Your task to perform on an android device: turn off picture-in-picture Image 0: 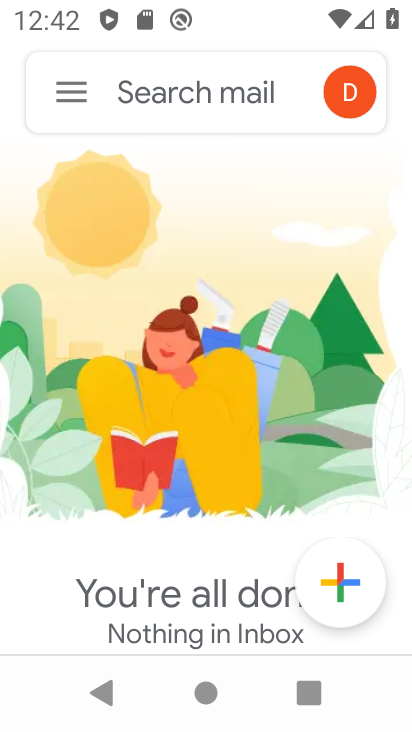
Step 0: press home button
Your task to perform on an android device: turn off picture-in-picture Image 1: 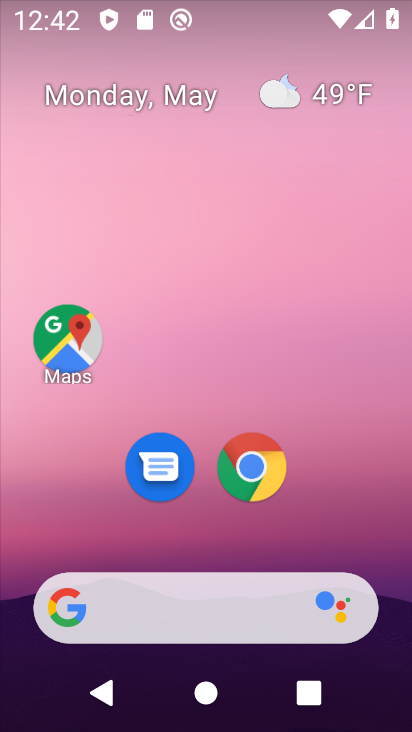
Step 1: drag from (349, 532) to (310, 162)
Your task to perform on an android device: turn off picture-in-picture Image 2: 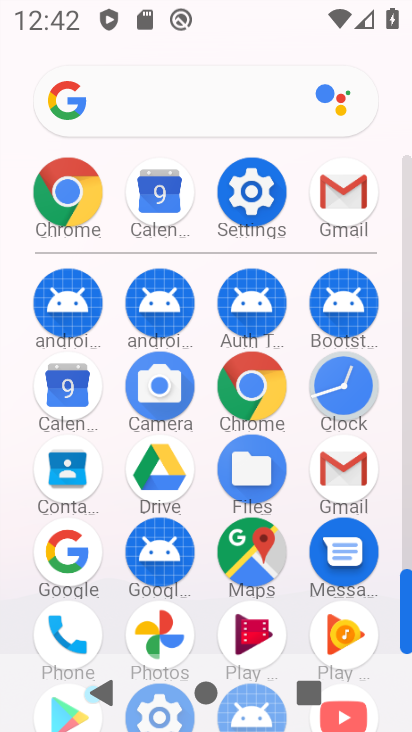
Step 2: click (241, 199)
Your task to perform on an android device: turn off picture-in-picture Image 3: 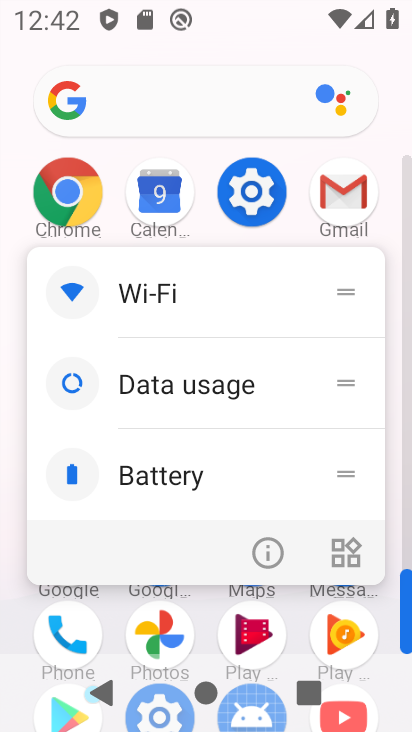
Step 3: click (398, 121)
Your task to perform on an android device: turn off picture-in-picture Image 4: 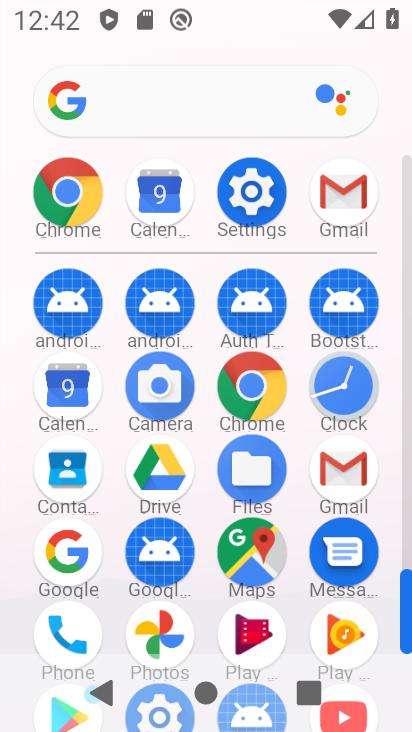
Step 4: click (254, 196)
Your task to perform on an android device: turn off picture-in-picture Image 5: 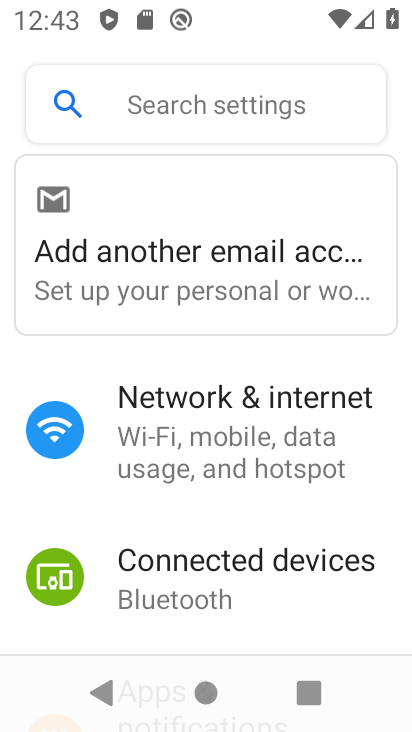
Step 5: drag from (302, 440) to (305, 126)
Your task to perform on an android device: turn off picture-in-picture Image 6: 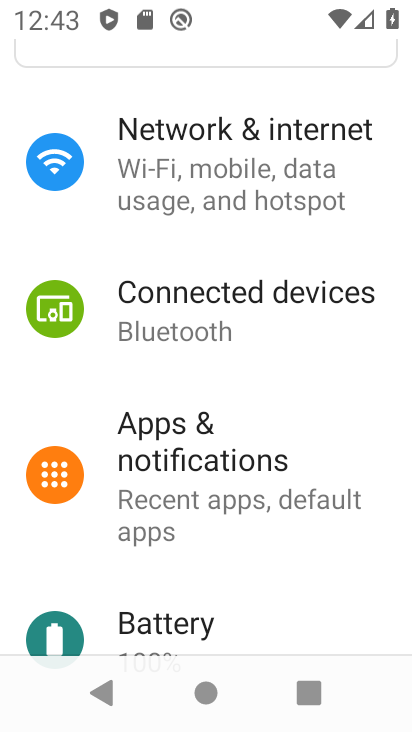
Step 6: drag from (355, 579) to (345, 218)
Your task to perform on an android device: turn off picture-in-picture Image 7: 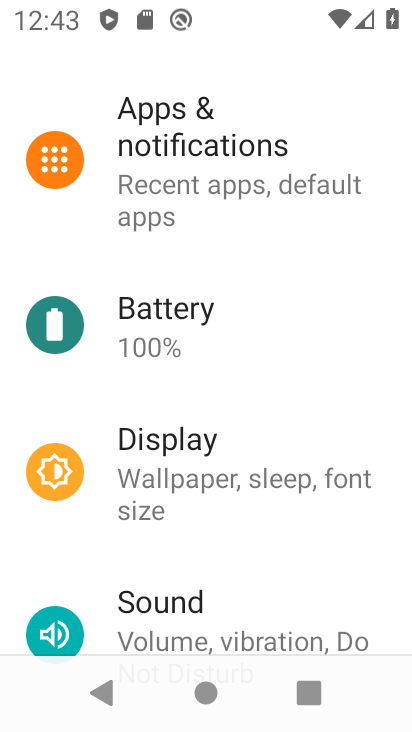
Step 7: drag from (345, 566) to (324, 267)
Your task to perform on an android device: turn off picture-in-picture Image 8: 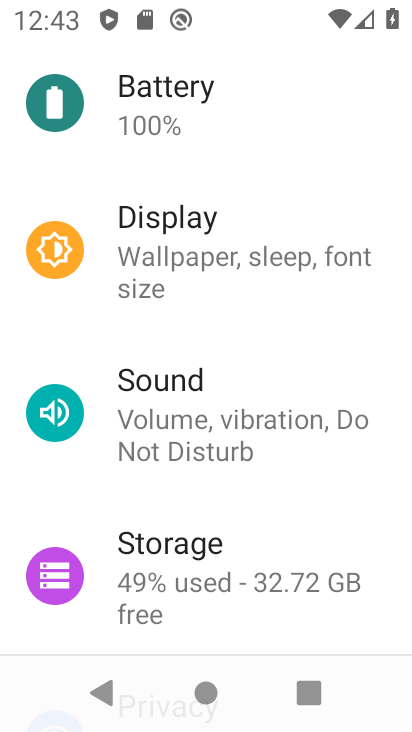
Step 8: drag from (339, 528) to (330, 201)
Your task to perform on an android device: turn off picture-in-picture Image 9: 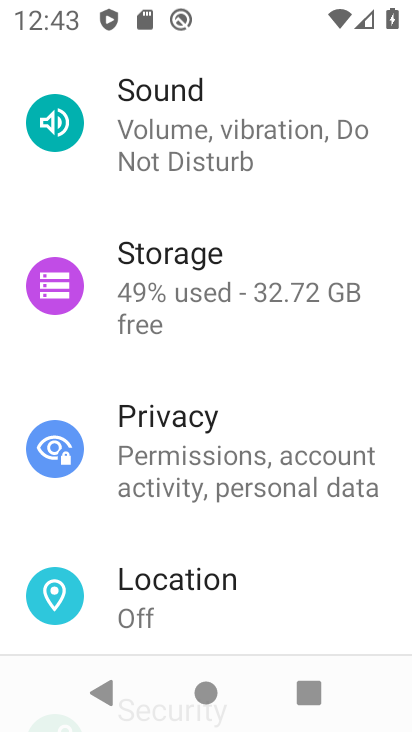
Step 9: drag from (326, 547) to (311, 171)
Your task to perform on an android device: turn off picture-in-picture Image 10: 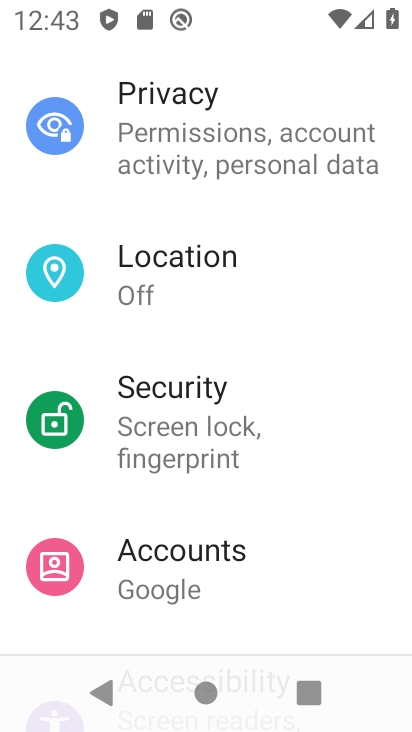
Step 10: drag from (323, 550) to (313, 267)
Your task to perform on an android device: turn off picture-in-picture Image 11: 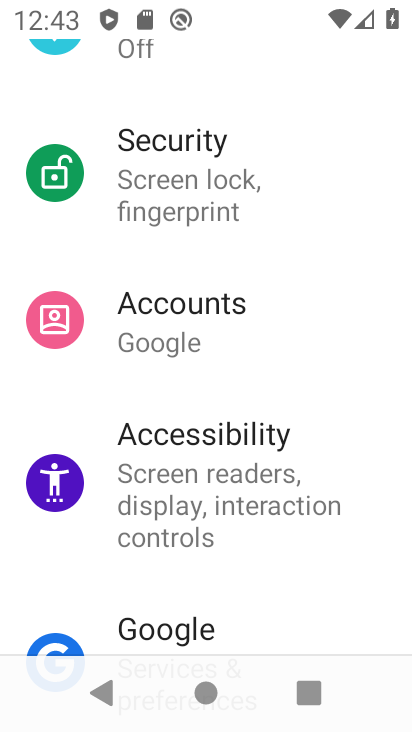
Step 11: drag from (291, 154) to (309, 555)
Your task to perform on an android device: turn off picture-in-picture Image 12: 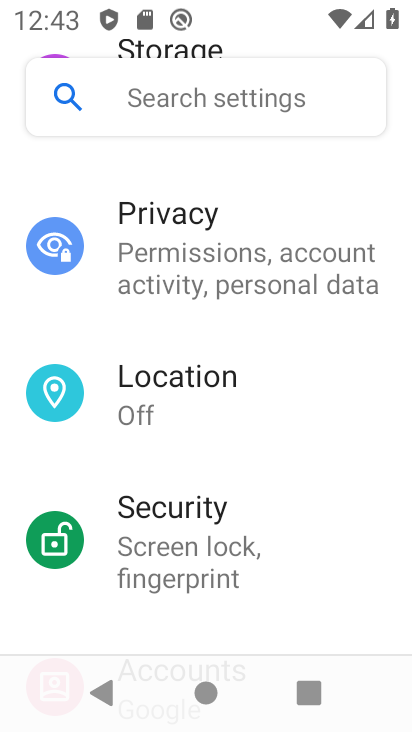
Step 12: drag from (302, 253) to (357, 548)
Your task to perform on an android device: turn off picture-in-picture Image 13: 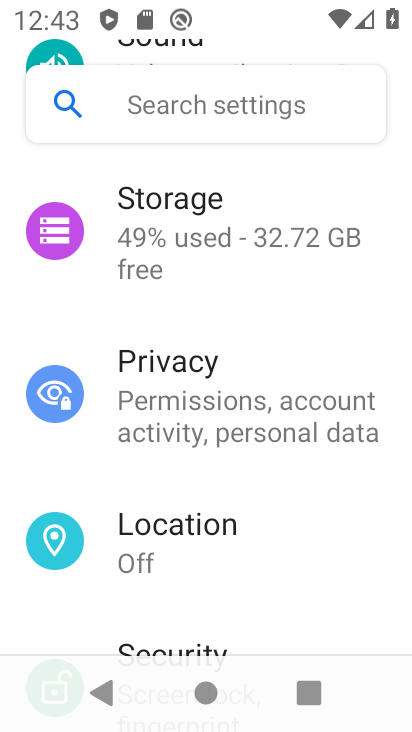
Step 13: drag from (292, 221) to (332, 543)
Your task to perform on an android device: turn off picture-in-picture Image 14: 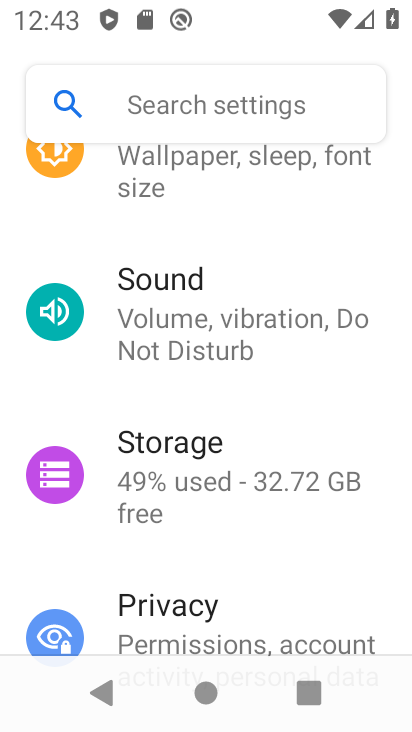
Step 14: drag from (276, 237) to (340, 524)
Your task to perform on an android device: turn off picture-in-picture Image 15: 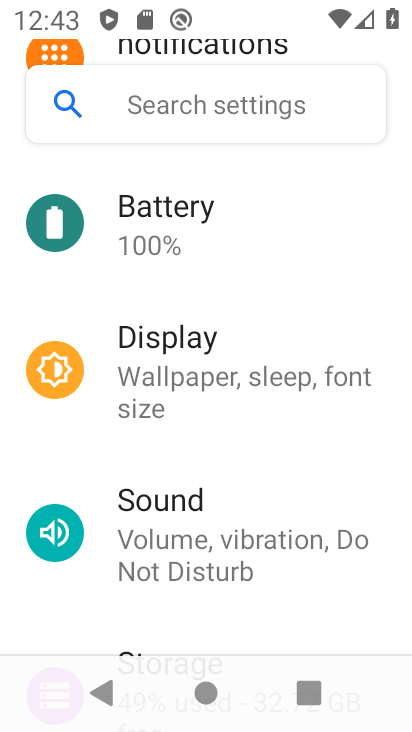
Step 15: drag from (318, 337) to (324, 568)
Your task to perform on an android device: turn off picture-in-picture Image 16: 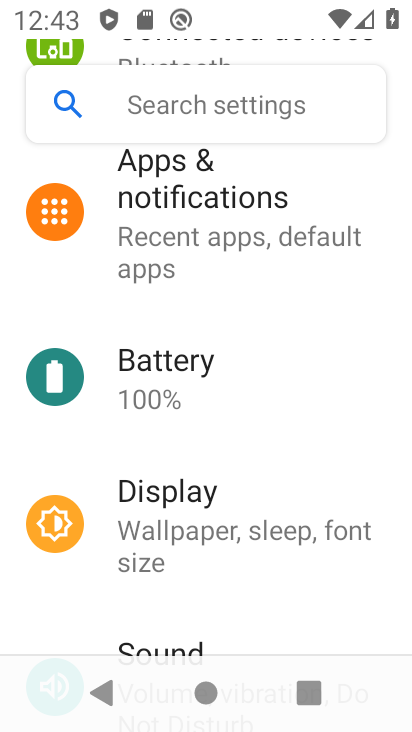
Step 16: click (255, 212)
Your task to perform on an android device: turn off picture-in-picture Image 17: 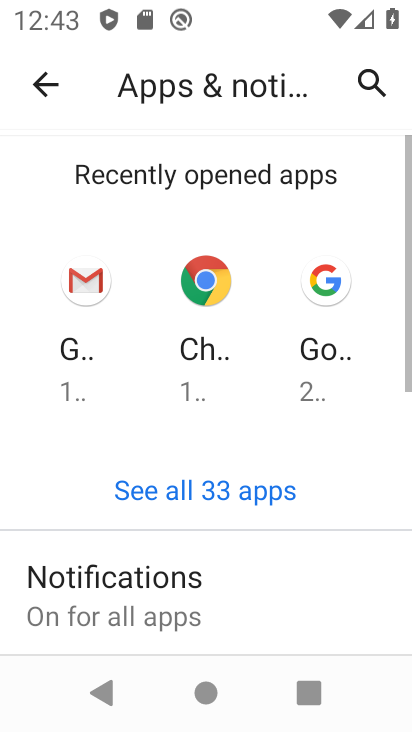
Step 17: drag from (341, 577) to (310, 178)
Your task to perform on an android device: turn off picture-in-picture Image 18: 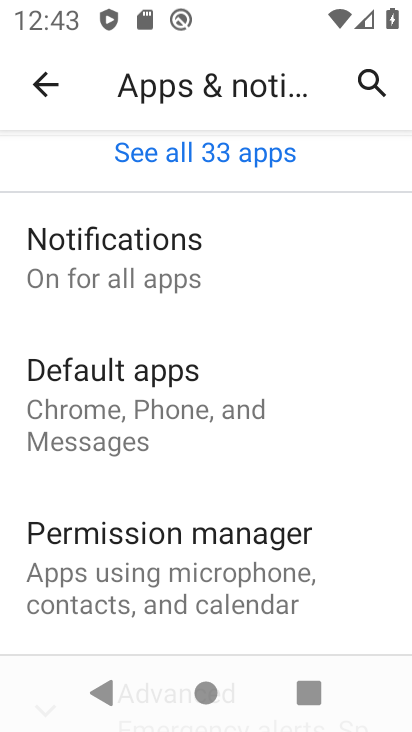
Step 18: drag from (334, 649) to (334, 181)
Your task to perform on an android device: turn off picture-in-picture Image 19: 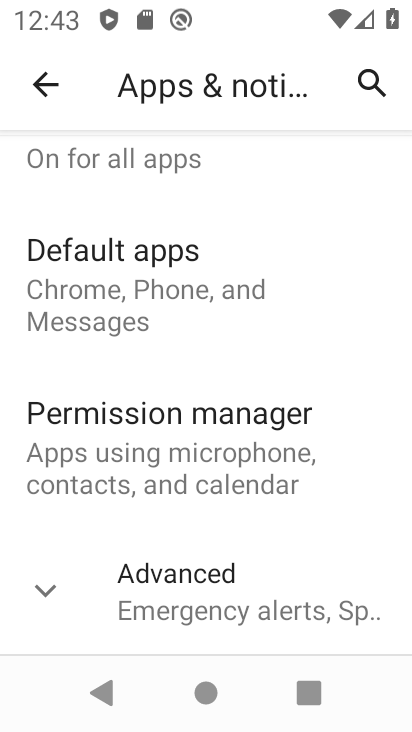
Step 19: click (297, 589)
Your task to perform on an android device: turn off picture-in-picture Image 20: 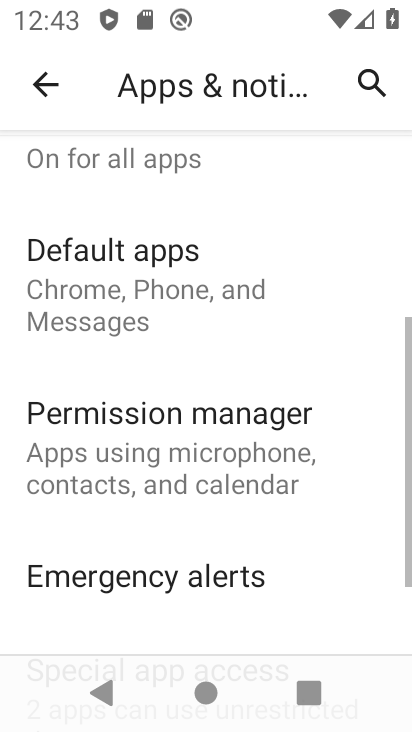
Step 20: drag from (317, 620) to (348, 133)
Your task to perform on an android device: turn off picture-in-picture Image 21: 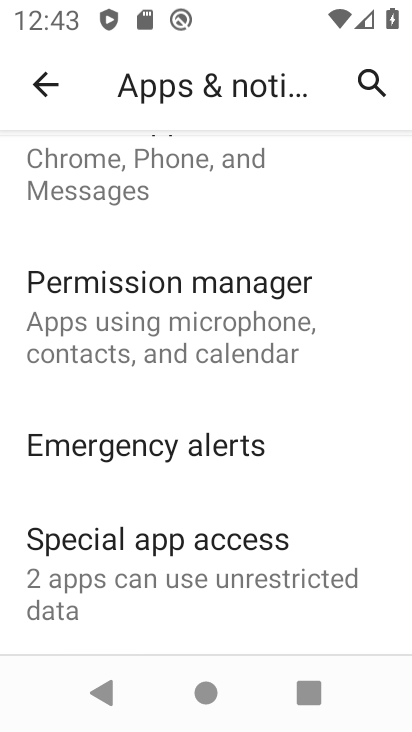
Step 21: click (332, 560)
Your task to perform on an android device: turn off picture-in-picture Image 22: 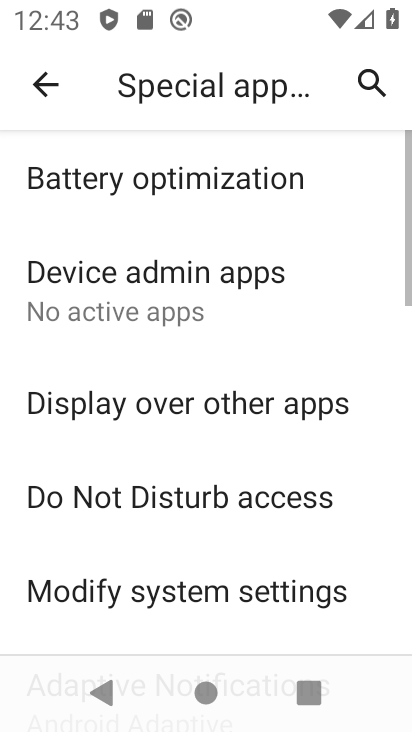
Step 22: drag from (356, 583) to (356, 327)
Your task to perform on an android device: turn off picture-in-picture Image 23: 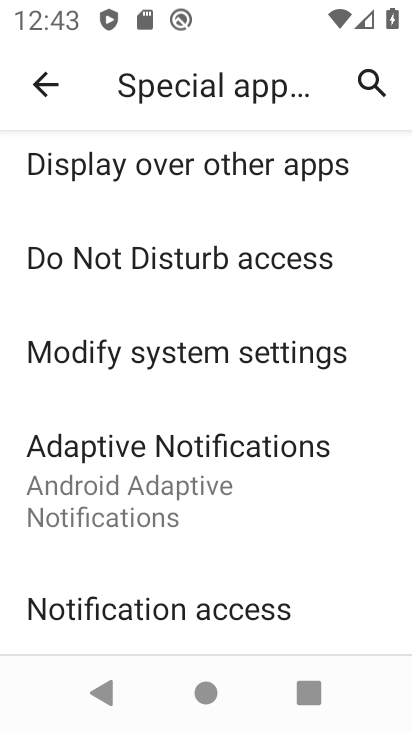
Step 23: drag from (325, 557) to (360, 225)
Your task to perform on an android device: turn off picture-in-picture Image 24: 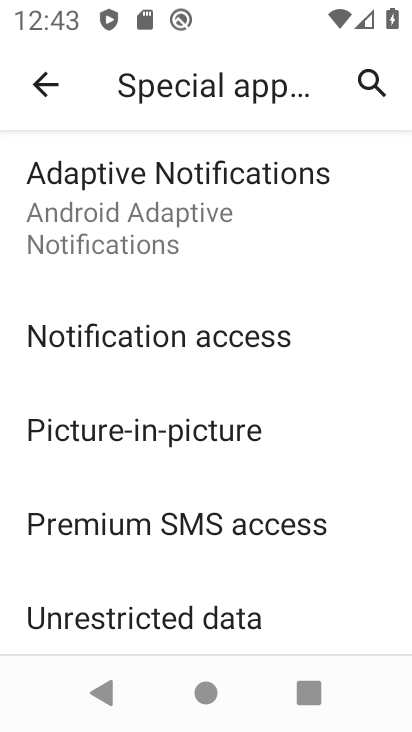
Step 24: click (172, 424)
Your task to perform on an android device: turn off picture-in-picture Image 25: 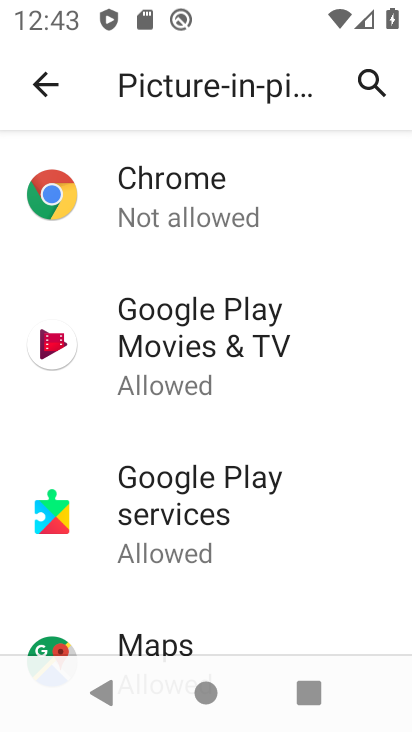
Step 25: click (178, 194)
Your task to perform on an android device: turn off picture-in-picture Image 26: 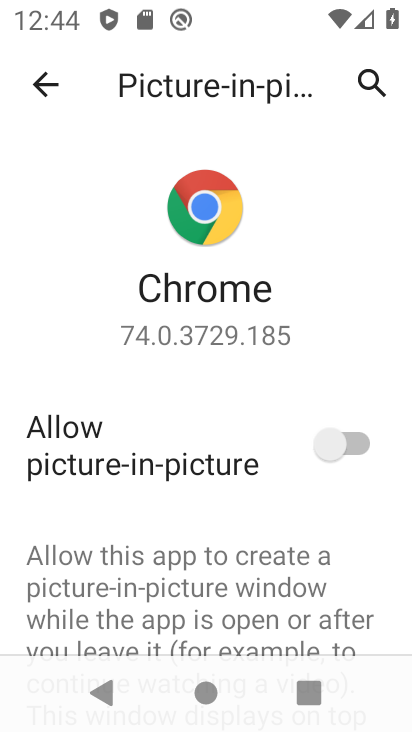
Step 26: task complete